Your task to perform on an android device: check the backup settings in the google photos Image 0: 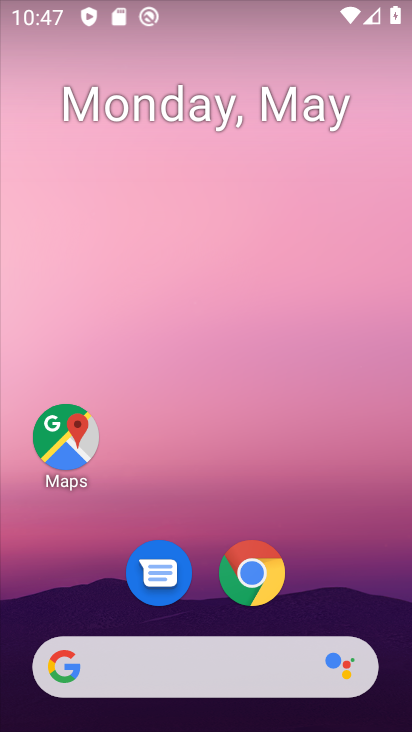
Step 0: click (255, 578)
Your task to perform on an android device: check the backup settings in the google photos Image 1: 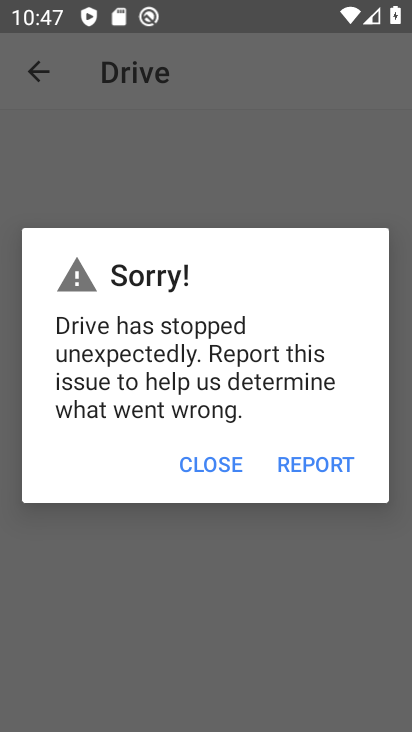
Step 1: press home button
Your task to perform on an android device: check the backup settings in the google photos Image 2: 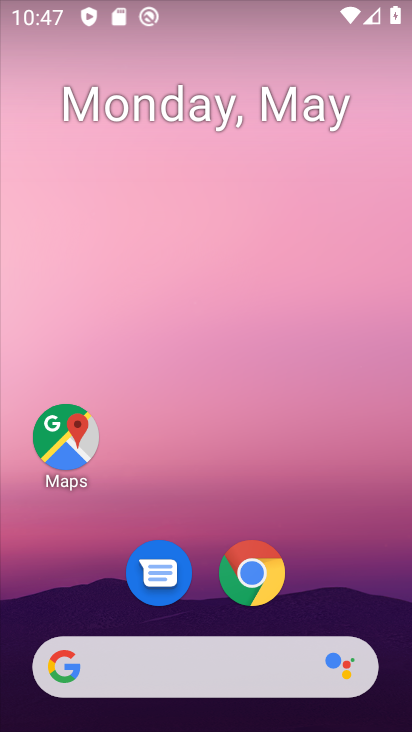
Step 2: drag from (267, 631) to (356, 197)
Your task to perform on an android device: check the backup settings in the google photos Image 3: 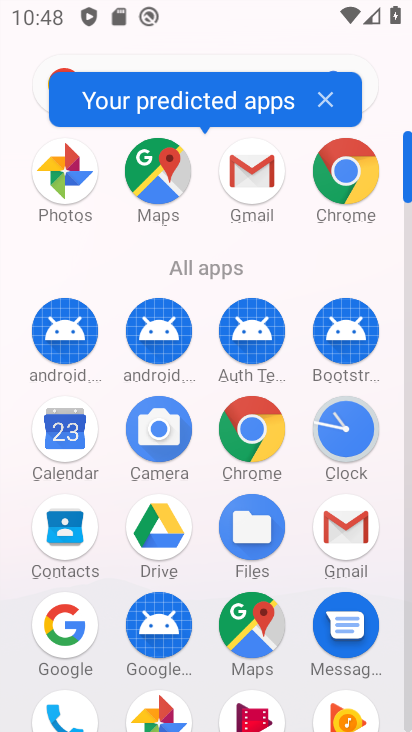
Step 3: click (162, 710)
Your task to perform on an android device: check the backup settings in the google photos Image 4: 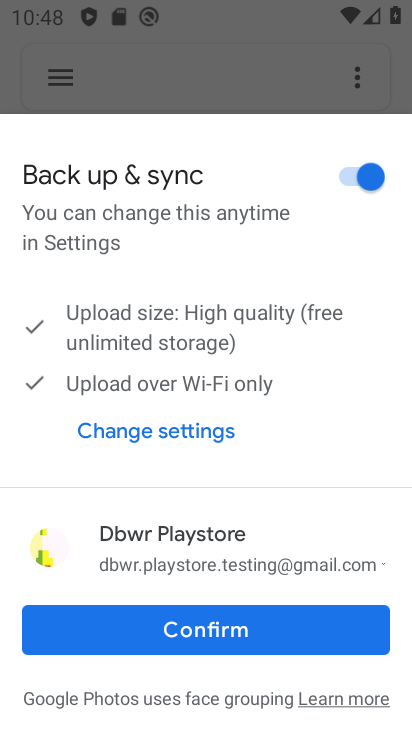
Step 4: click (180, 639)
Your task to perform on an android device: check the backup settings in the google photos Image 5: 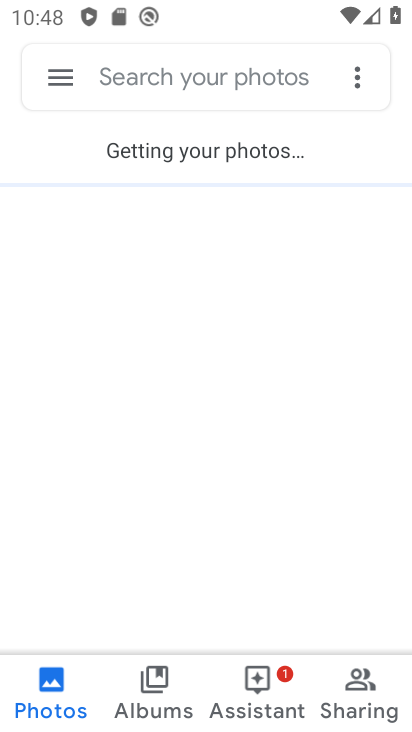
Step 5: click (55, 82)
Your task to perform on an android device: check the backup settings in the google photos Image 6: 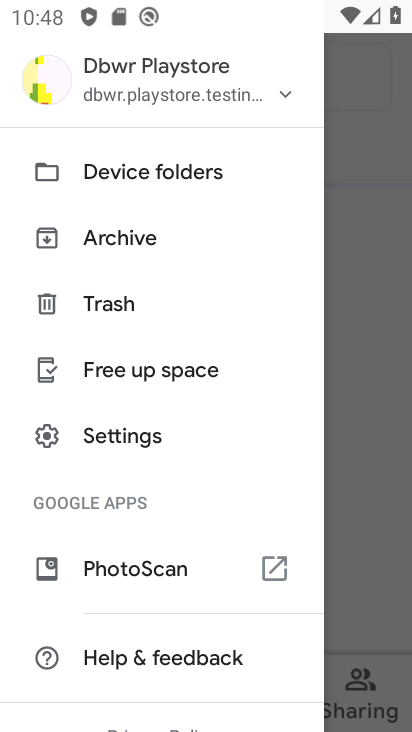
Step 6: click (123, 432)
Your task to perform on an android device: check the backup settings in the google photos Image 7: 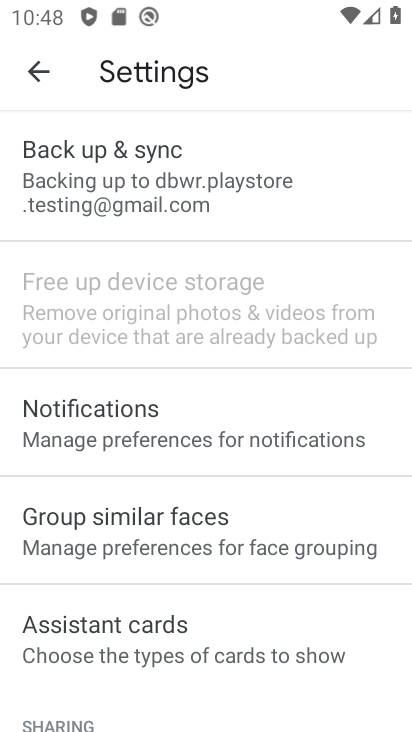
Step 7: click (181, 170)
Your task to perform on an android device: check the backup settings in the google photos Image 8: 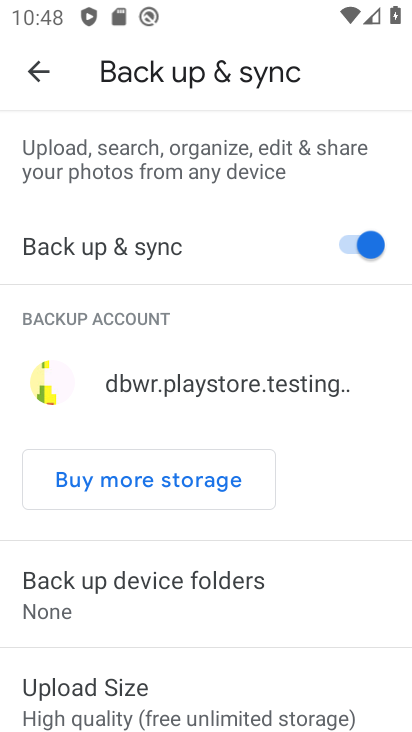
Step 8: task complete